Your task to perform on an android device: toggle translation in the chrome app Image 0: 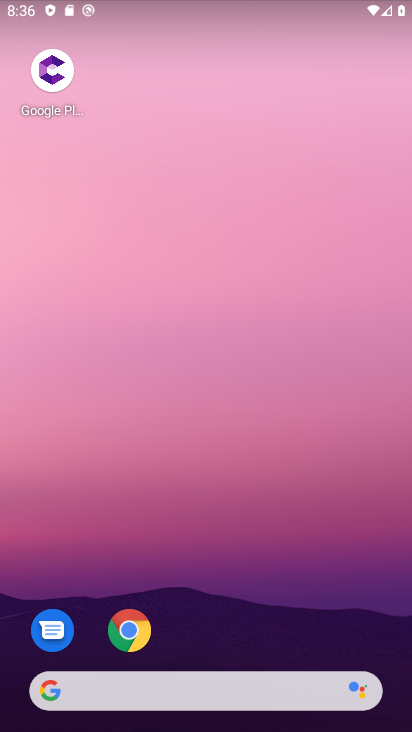
Step 0: click (118, 616)
Your task to perform on an android device: toggle translation in the chrome app Image 1: 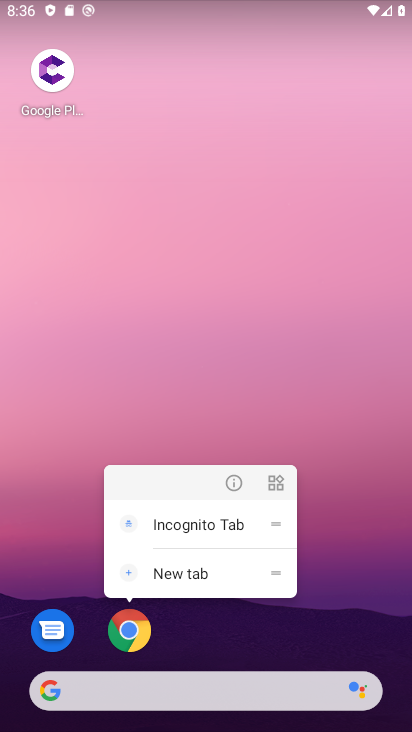
Step 1: click (118, 616)
Your task to perform on an android device: toggle translation in the chrome app Image 2: 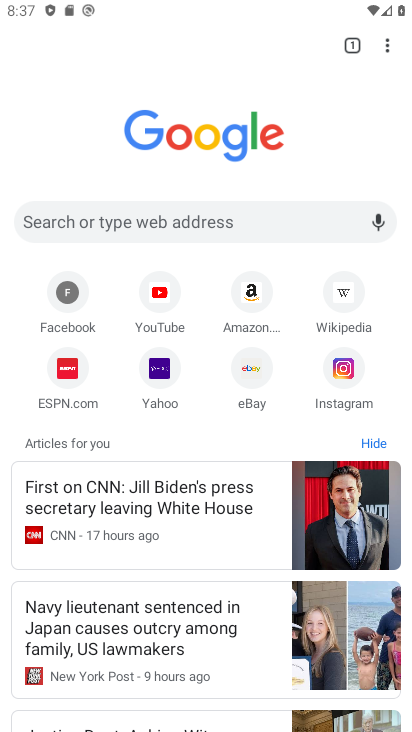
Step 2: click (389, 47)
Your task to perform on an android device: toggle translation in the chrome app Image 3: 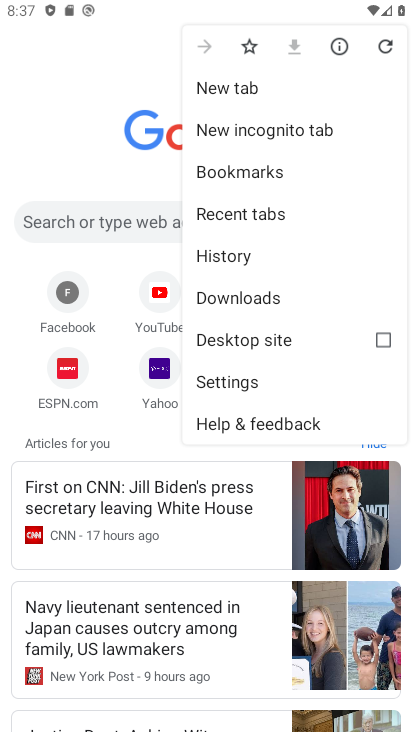
Step 3: click (231, 394)
Your task to perform on an android device: toggle translation in the chrome app Image 4: 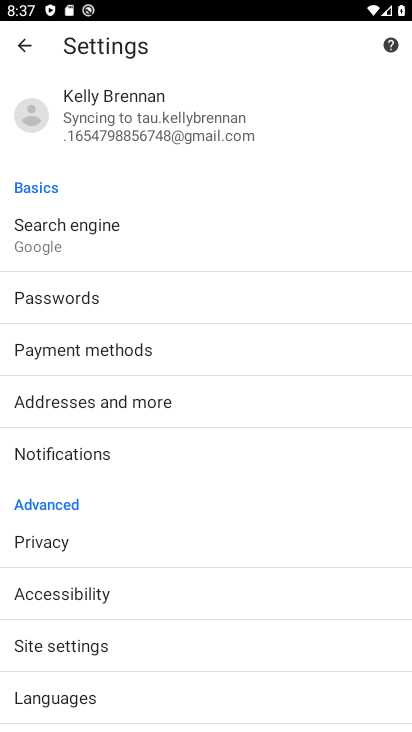
Step 4: click (133, 689)
Your task to perform on an android device: toggle translation in the chrome app Image 5: 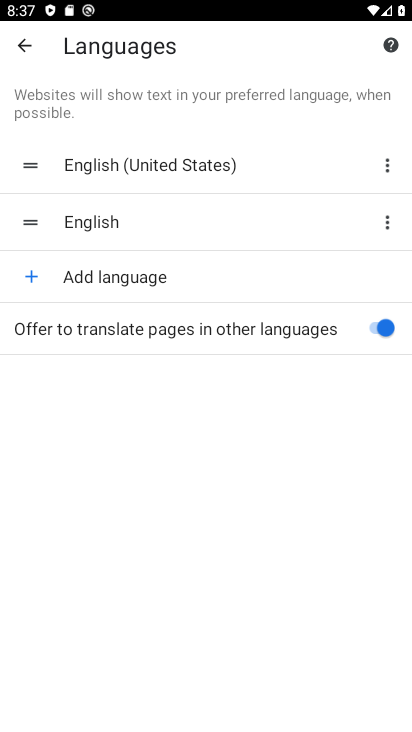
Step 5: click (370, 327)
Your task to perform on an android device: toggle translation in the chrome app Image 6: 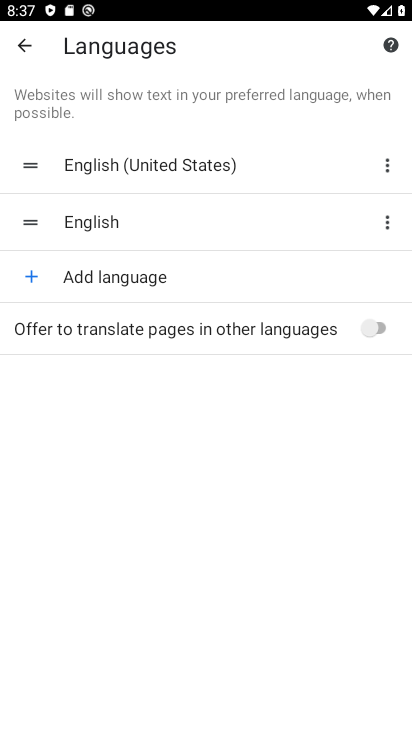
Step 6: task complete